Your task to perform on an android device: uninstall "Microsoft Outlook" Image 0: 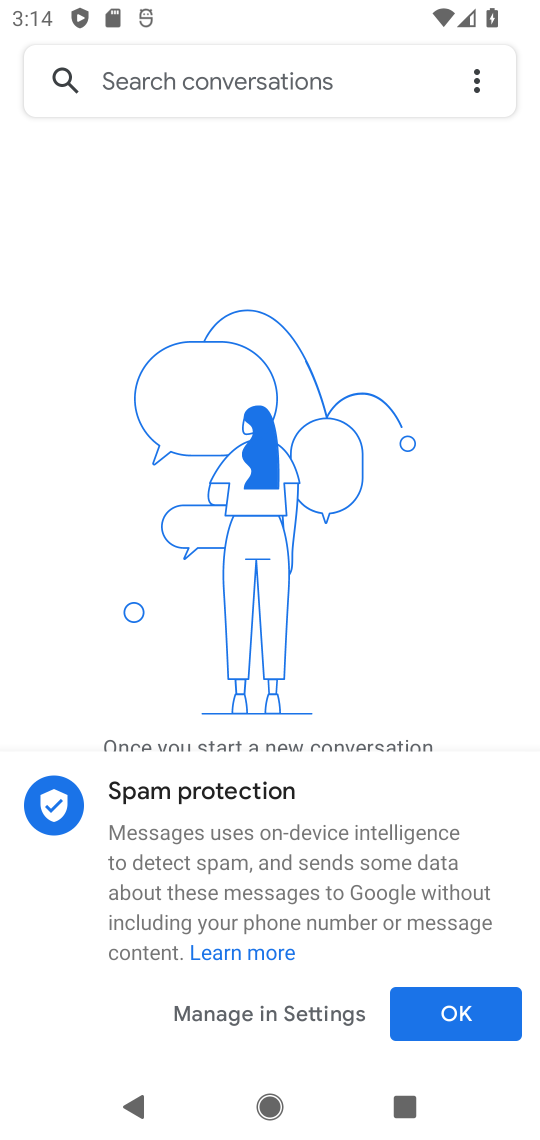
Step 0: press back button
Your task to perform on an android device: uninstall "Microsoft Outlook" Image 1: 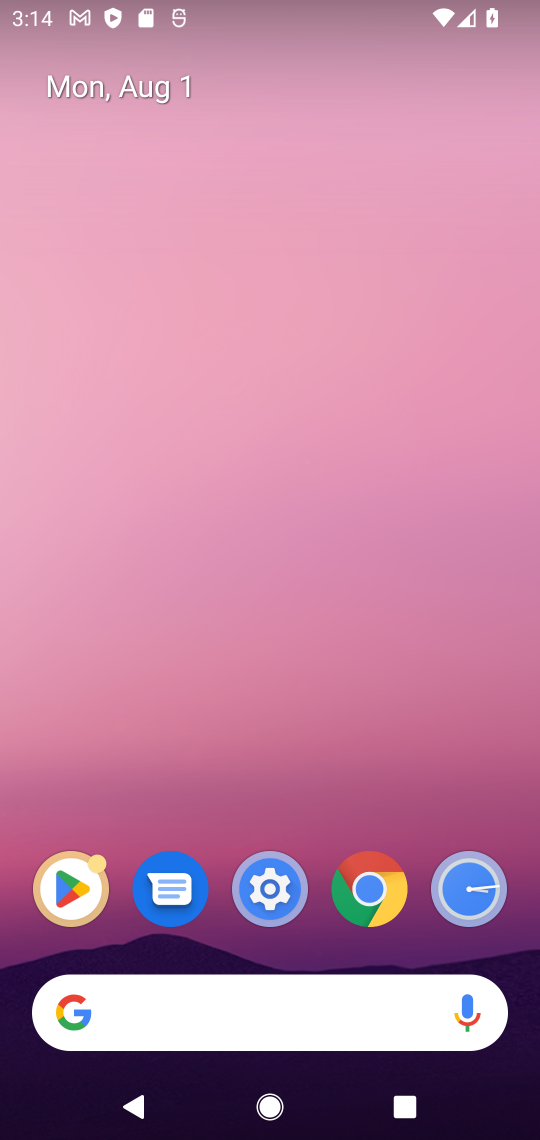
Step 1: click (86, 896)
Your task to perform on an android device: uninstall "Microsoft Outlook" Image 2: 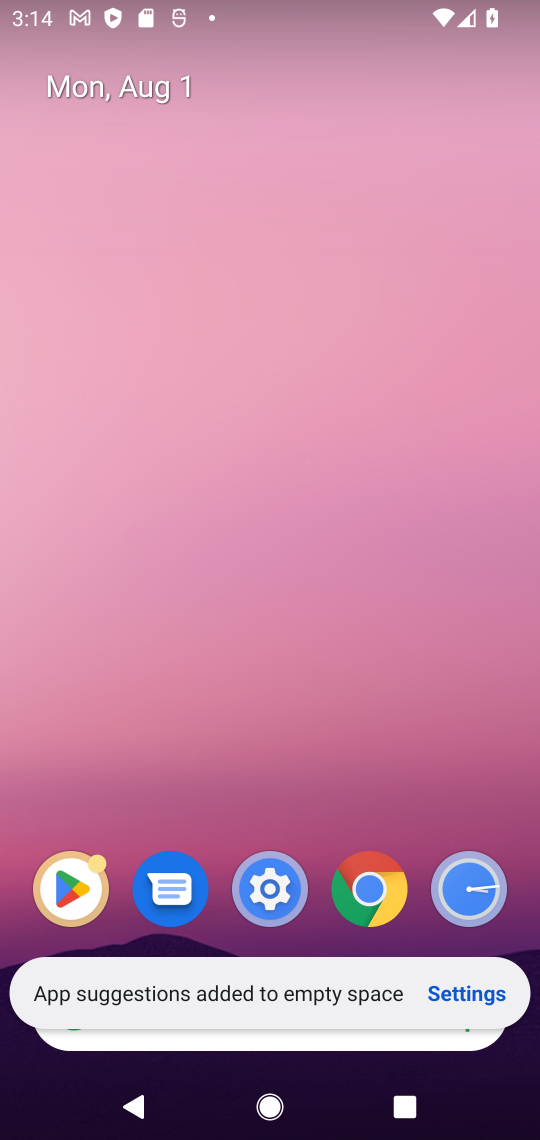
Step 2: click (83, 889)
Your task to perform on an android device: uninstall "Microsoft Outlook" Image 3: 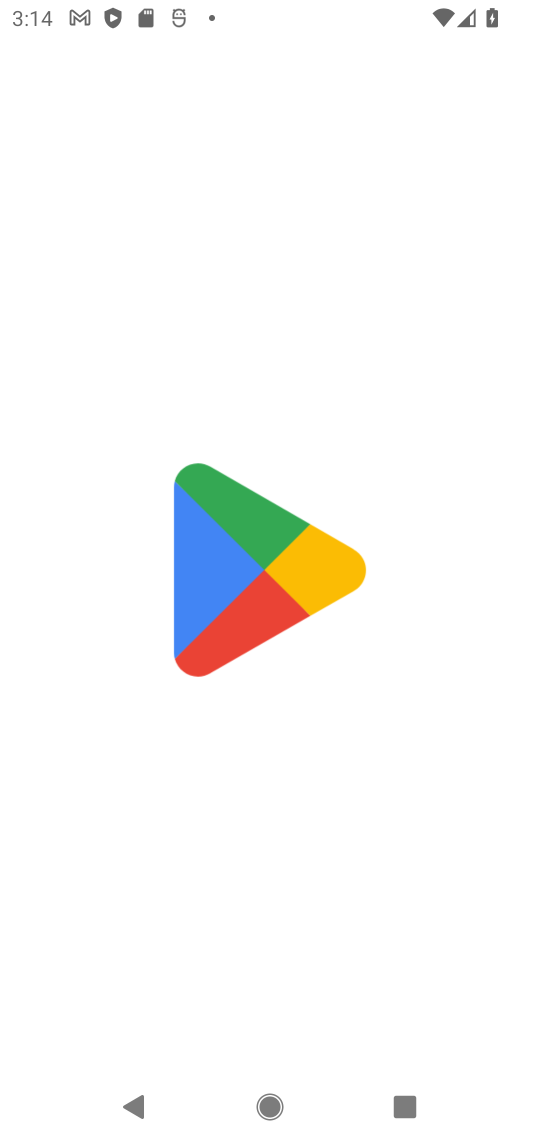
Step 3: click (79, 887)
Your task to perform on an android device: uninstall "Microsoft Outlook" Image 4: 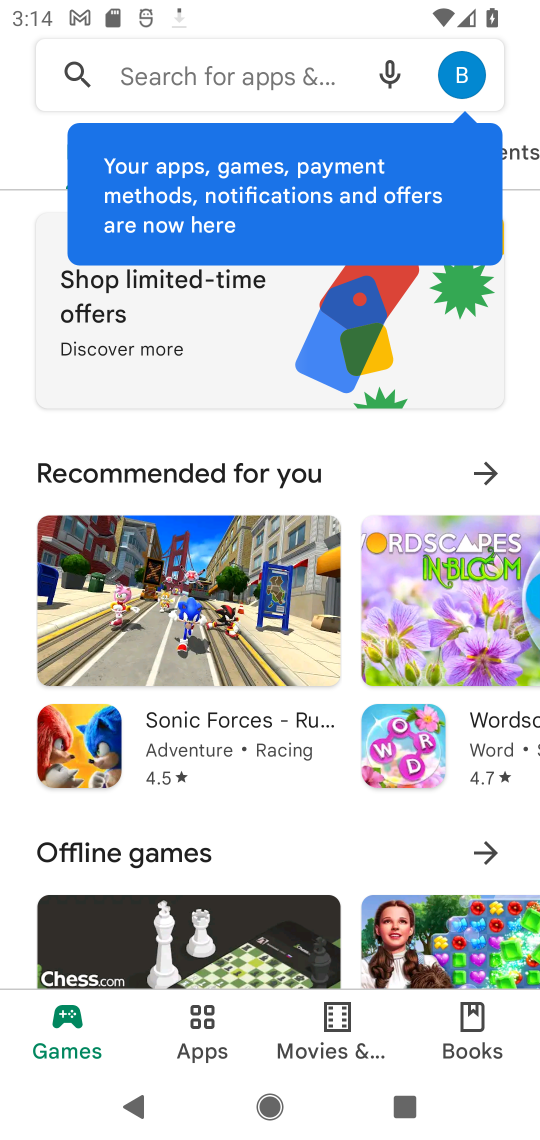
Step 4: click (126, 98)
Your task to perform on an android device: uninstall "Microsoft Outlook" Image 5: 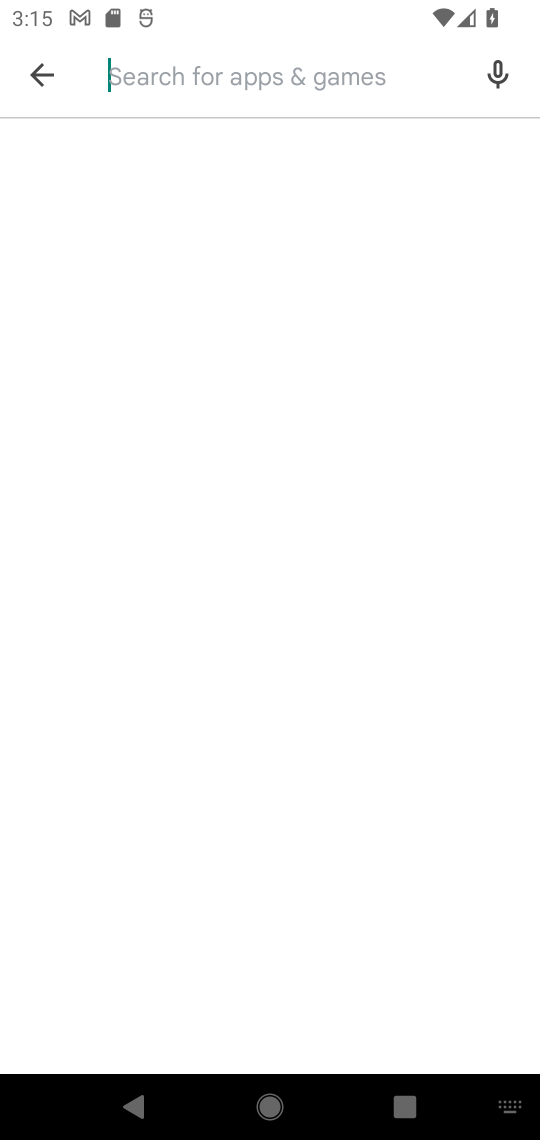
Step 5: type "Microsoft Outlook"
Your task to perform on an android device: uninstall "Microsoft Outlook" Image 6: 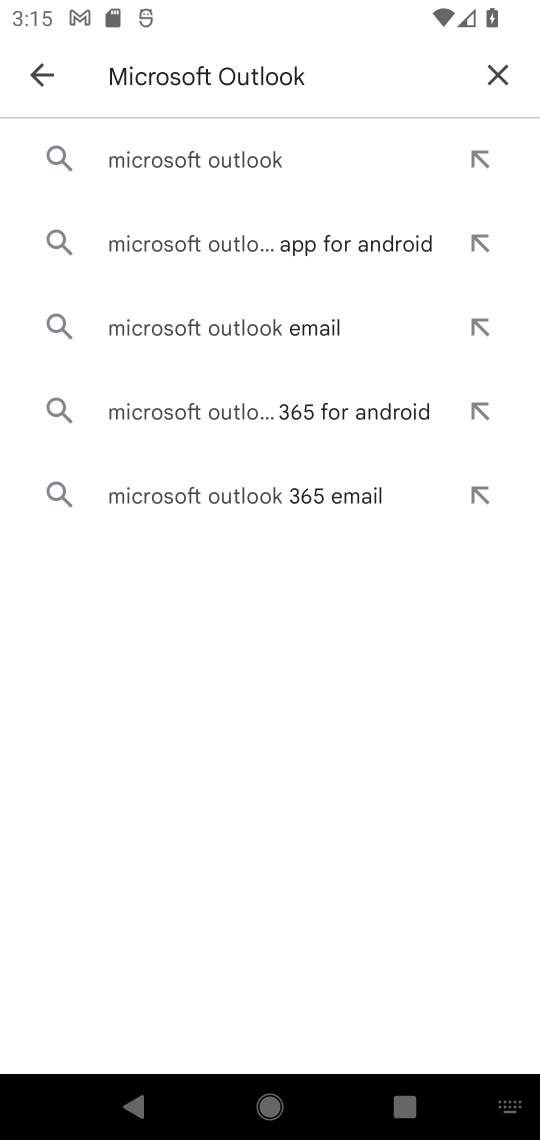
Step 6: click (256, 145)
Your task to perform on an android device: uninstall "Microsoft Outlook" Image 7: 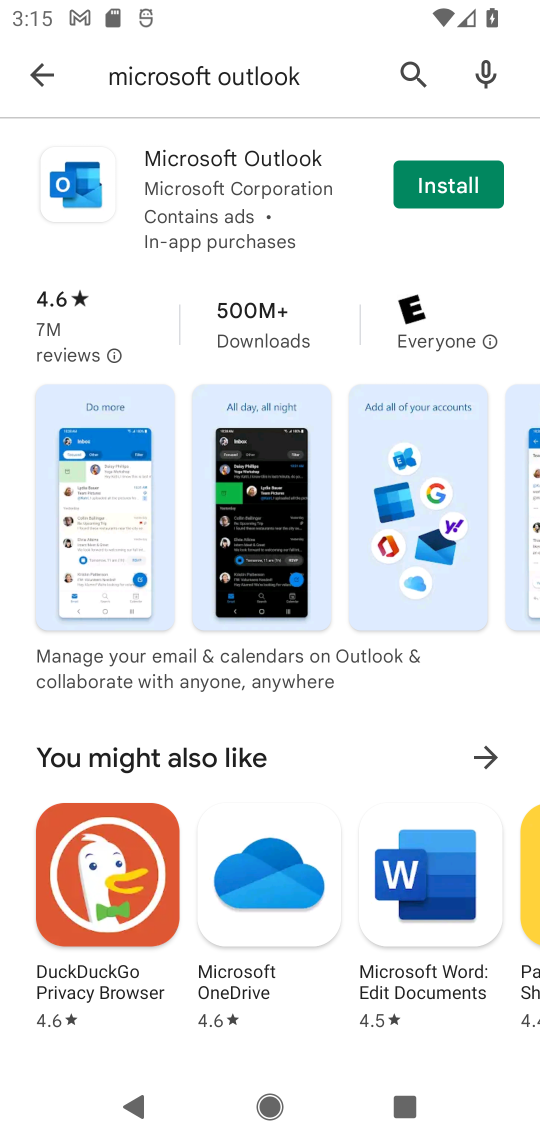
Step 7: task complete